Your task to perform on an android device: Find coffee shops on Maps Image 0: 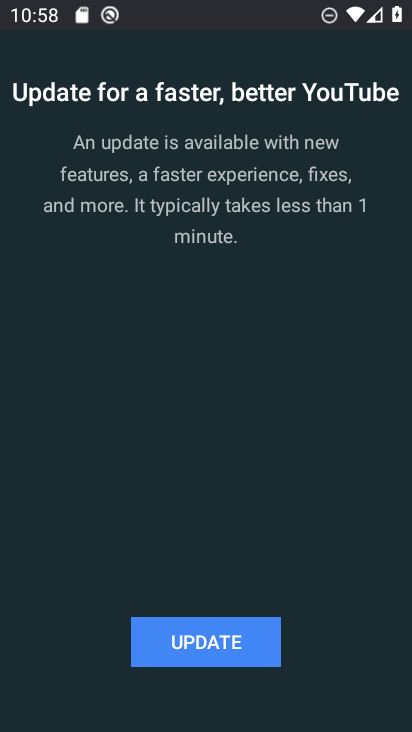
Step 0: press home button
Your task to perform on an android device: Find coffee shops on Maps Image 1: 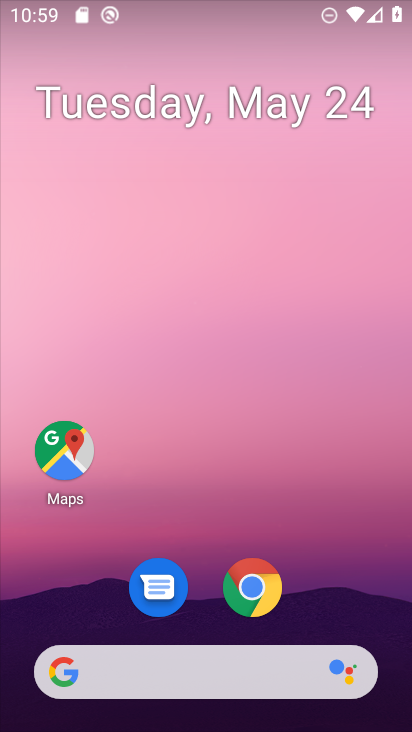
Step 1: click (56, 453)
Your task to perform on an android device: Find coffee shops on Maps Image 2: 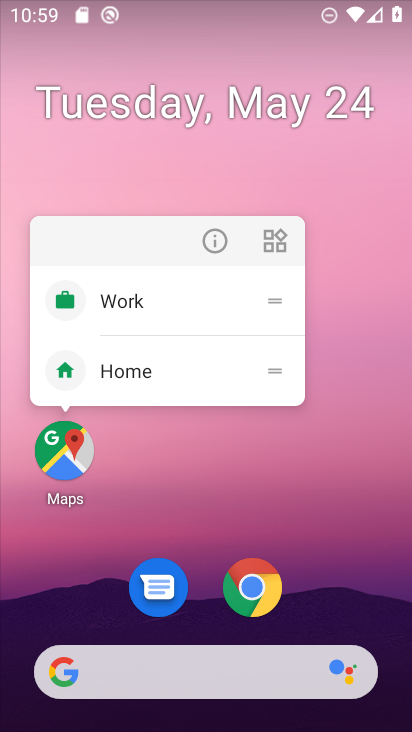
Step 2: click (56, 453)
Your task to perform on an android device: Find coffee shops on Maps Image 3: 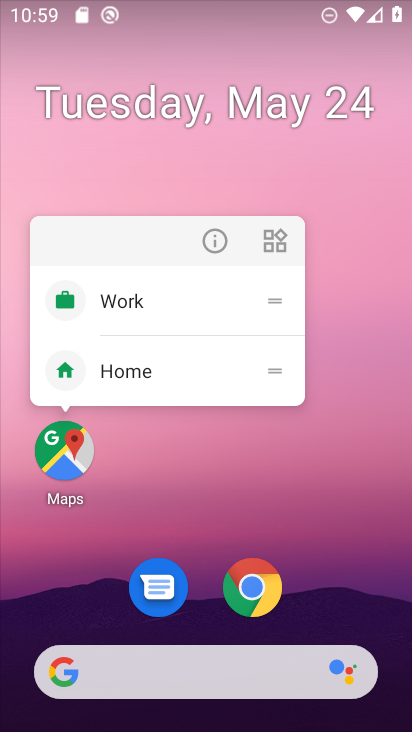
Step 3: click (56, 453)
Your task to perform on an android device: Find coffee shops on Maps Image 4: 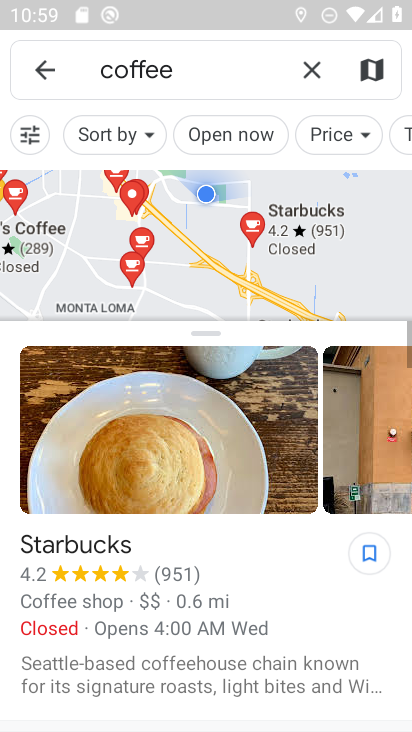
Step 4: click (311, 61)
Your task to perform on an android device: Find coffee shops on Maps Image 5: 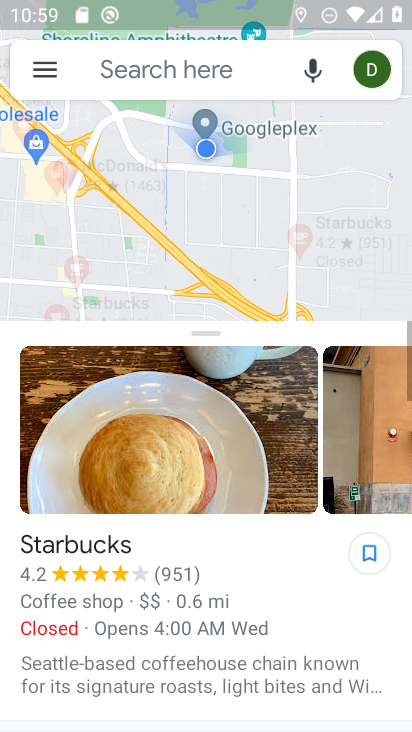
Step 5: click (173, 76)
Your task to perform on an android device: Find coffee shops on Maps Image 6: 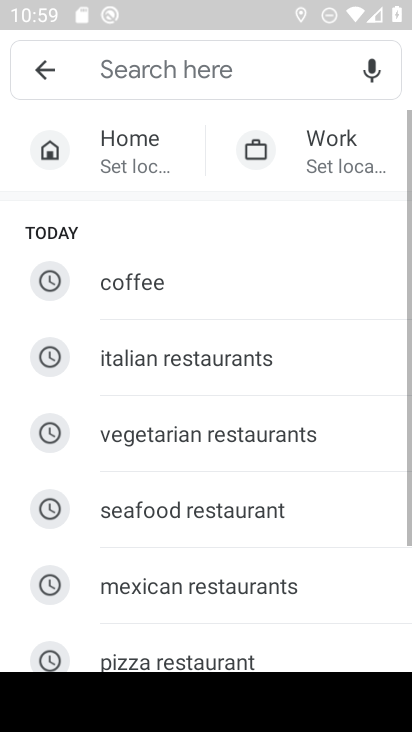
Step 6: click (173, 76)
Your task to perform on an android device: Find coffee shops on Maps Image 7: 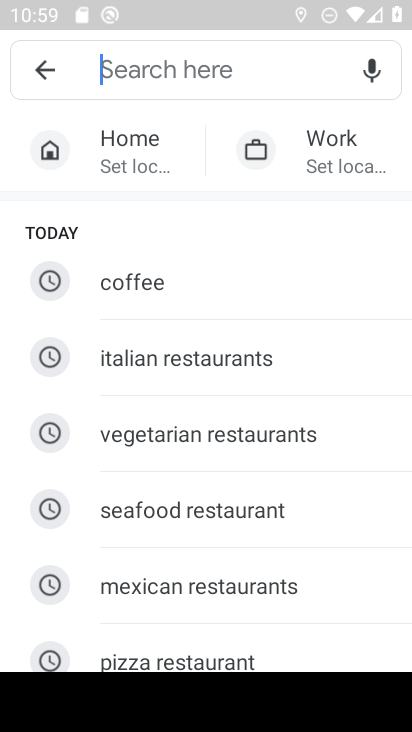
Step 7: type " coffee shops"
Your task to perform on an android device: Find coffee shops on Maps Image 8: 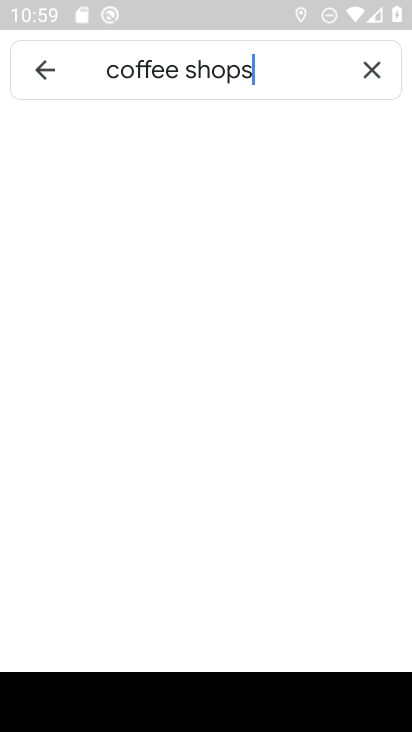
Step 8: type ""
Your task to perform on an android device: Find coffee shops on Maps Image 9: 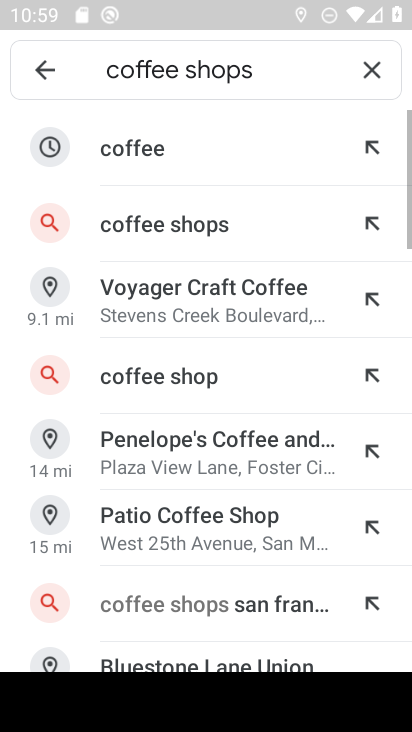
Step 9: click (123, 124)
Your task to perform on an android device: Find coffee shops on Maps Image 10: 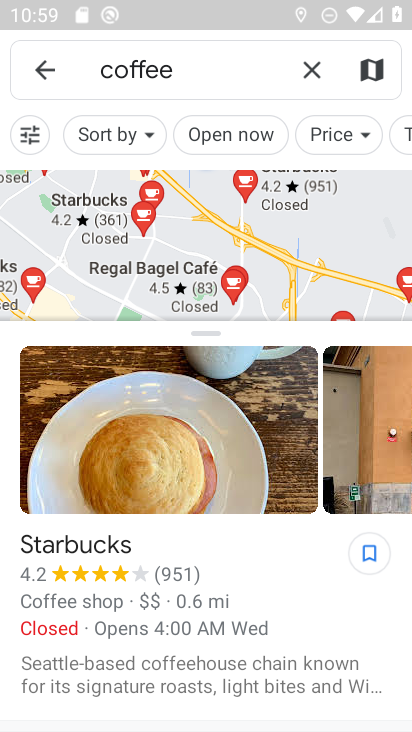
Step 10: task complete